Your task to perform on an android device: Search for flights from Tokyo to NYC Image 0: 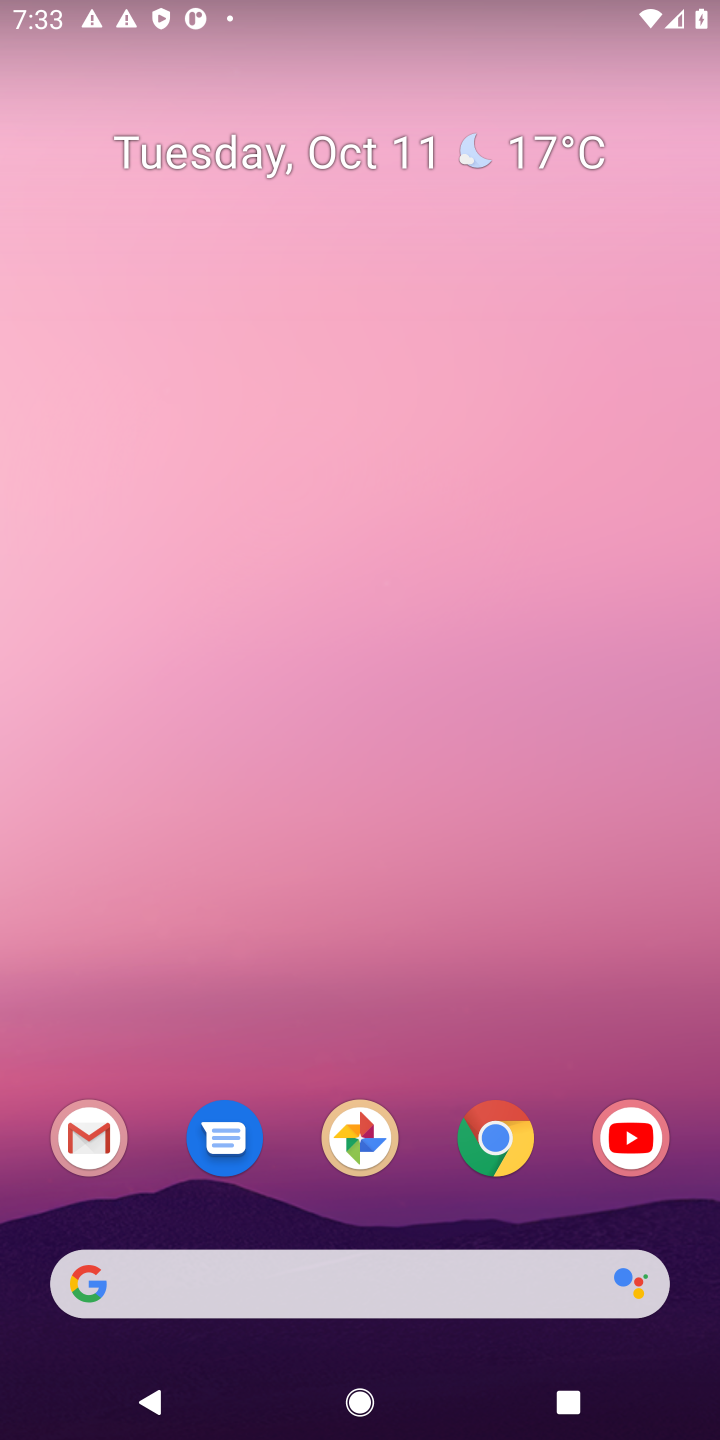
Step 0: click (268, 1274)
Your task to perform on an android device: Search for flights from Tokyo to NYC Image 1: 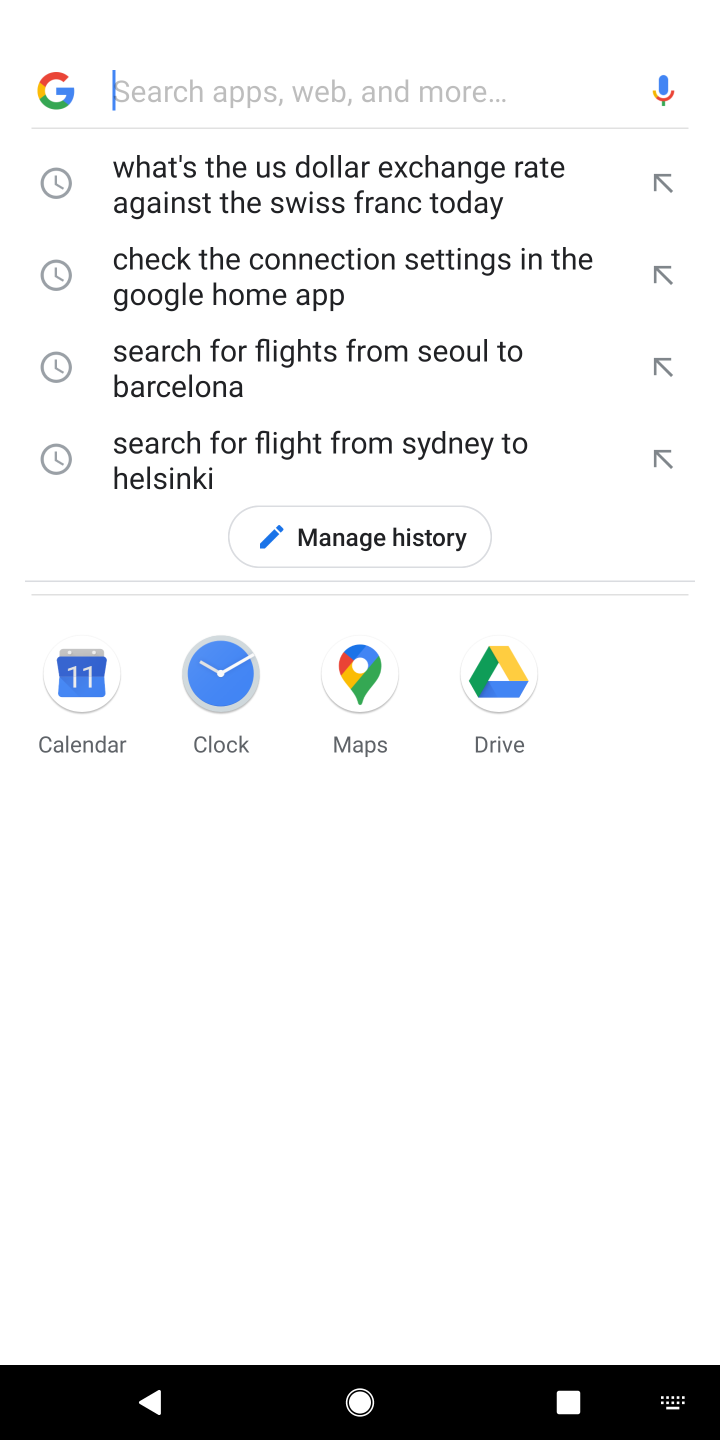
Step 1: type "search for flights from tokyo to NYC"
Your task to perform on an android device: Search for flights from Tokyo to NYC Image 2: 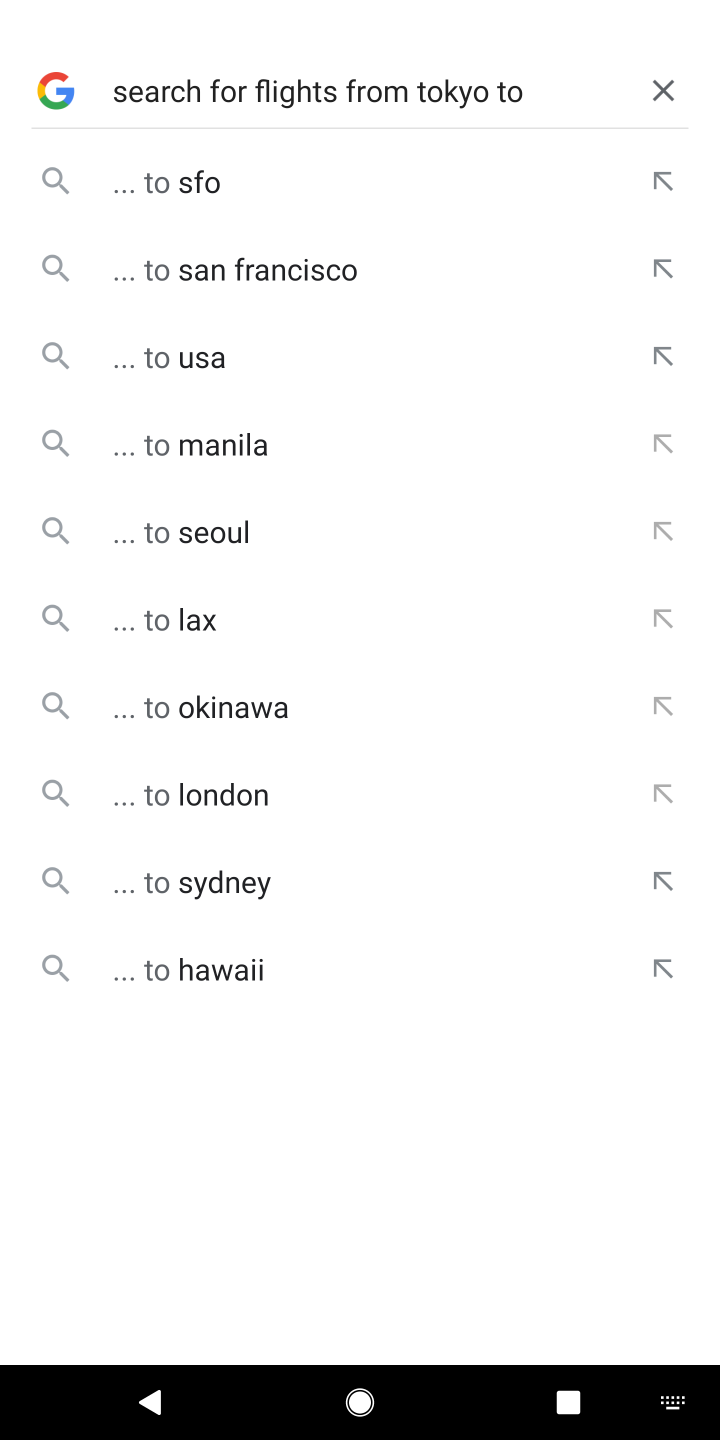
Step 2: type " NYC"
Your task to perform on an android device: Search for flights from Tokyo to NYC Image 3: 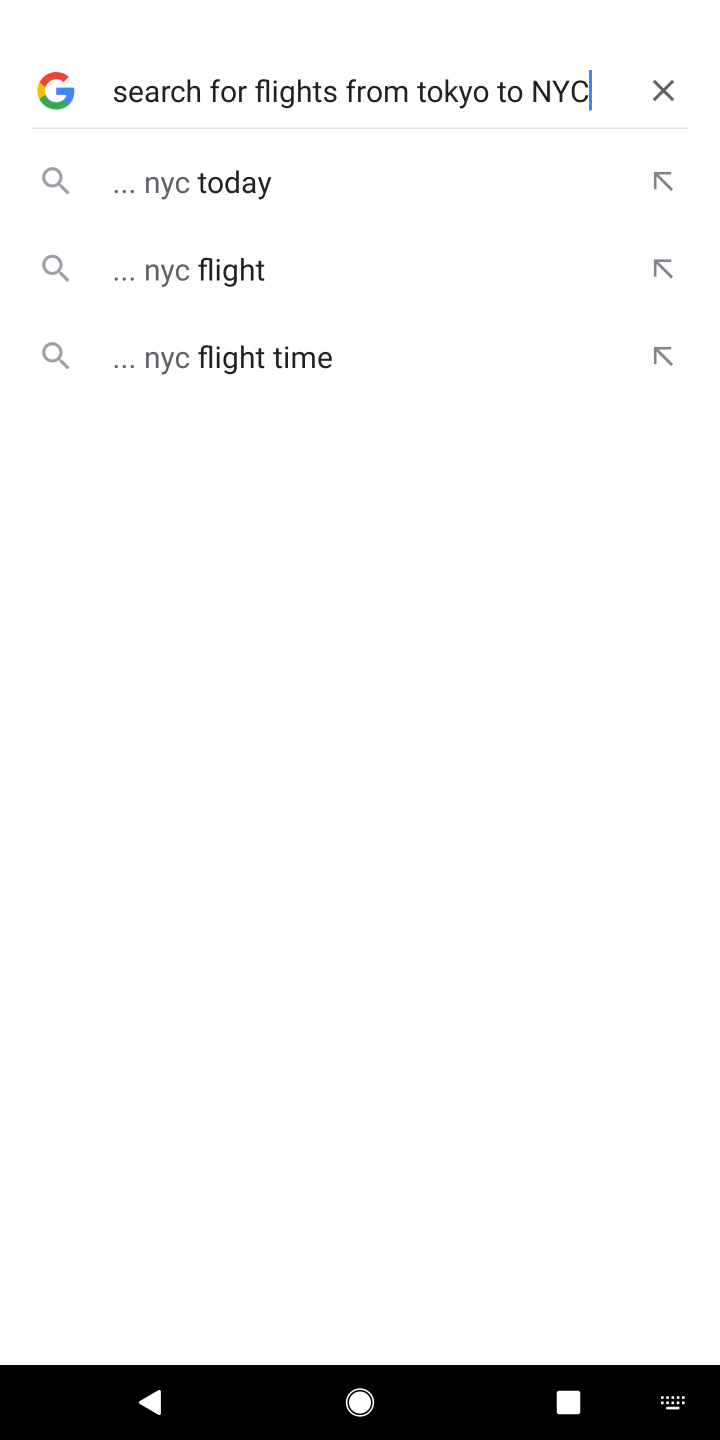
Step 3: click (224, 179)
Your task to perform on an android device: Search for flights from Tokyo to NYC Image 4: 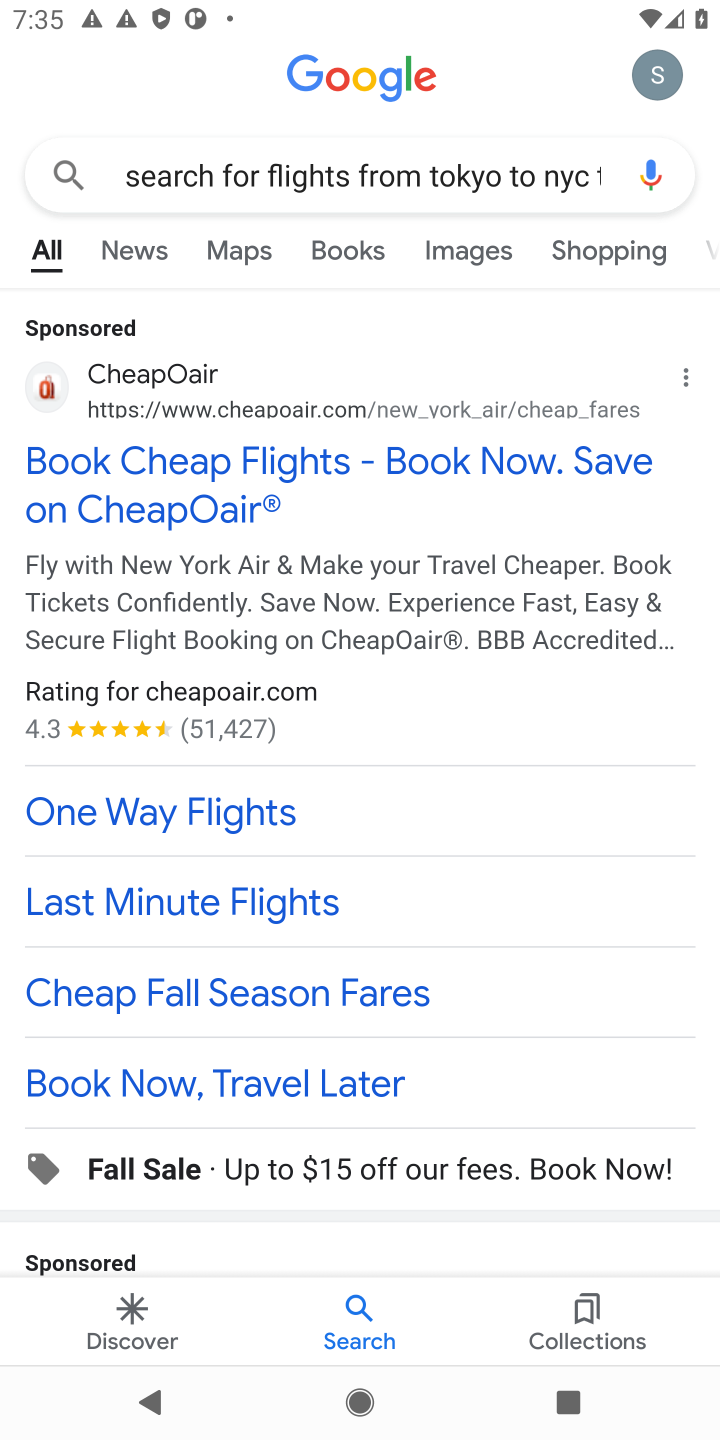
Step 4: click (183, 466)
Your task to perform on an android device: Search for flights from Tokyo to NYC Image 5: 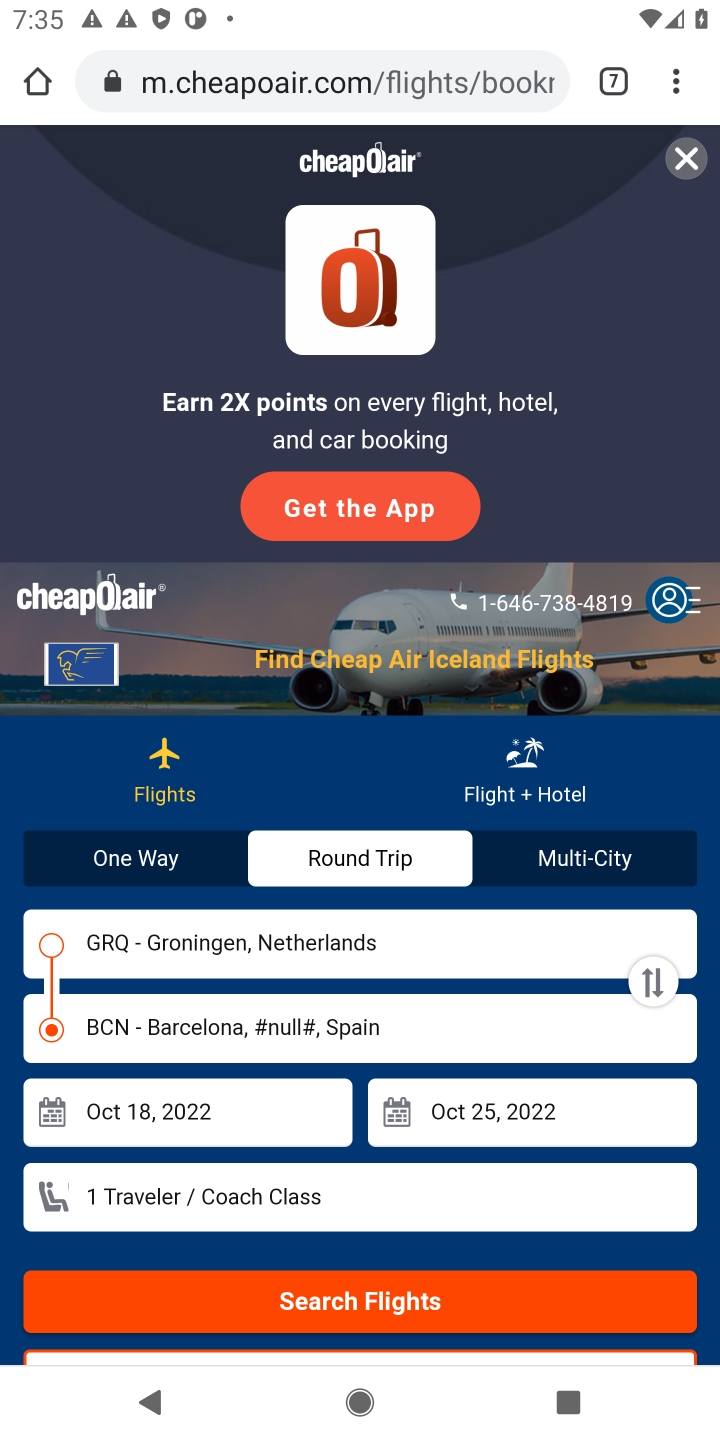
Step 5: click (117, 859)
Your task to perform on an android device: Search for flights from Tokyo to NYC Image 6: 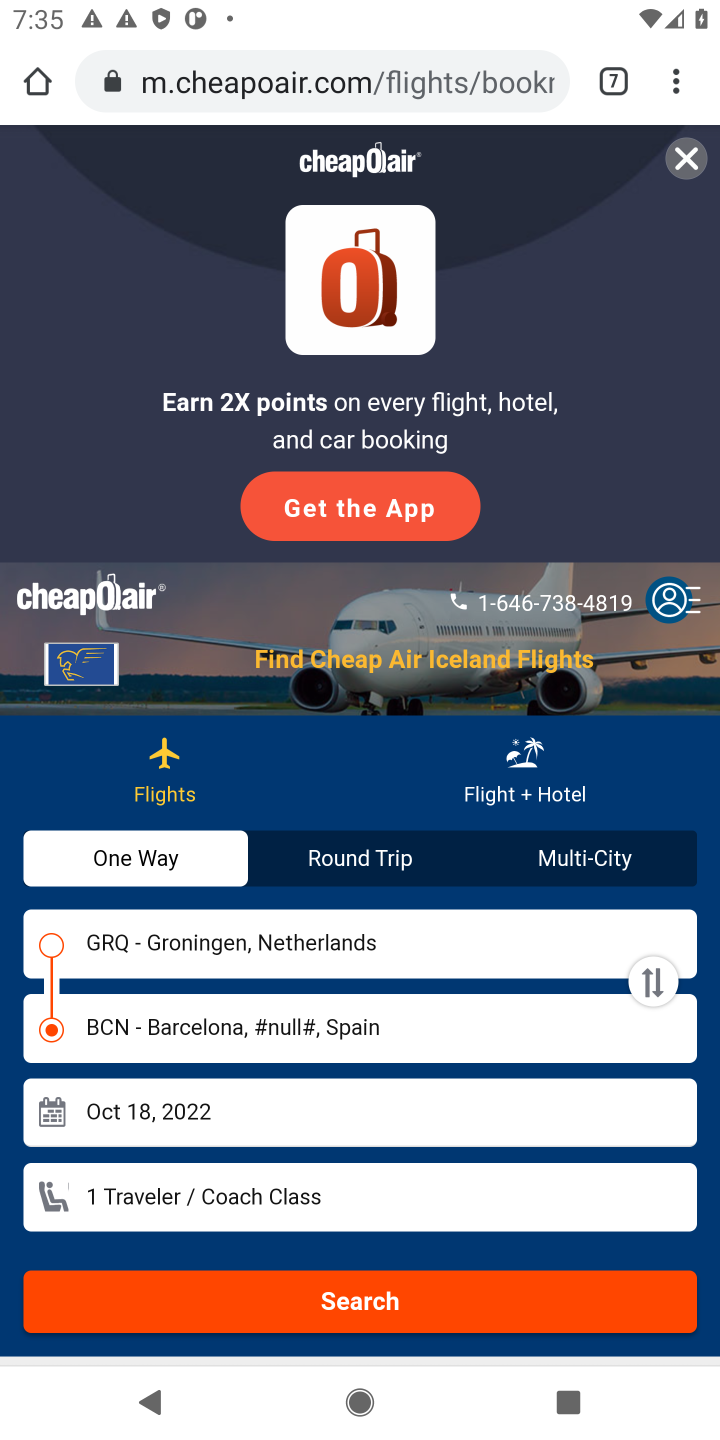
Step 6: click (337, 1300)
Your task to perform on an android device: Search for flights from Tokyo to NYC Image 7: 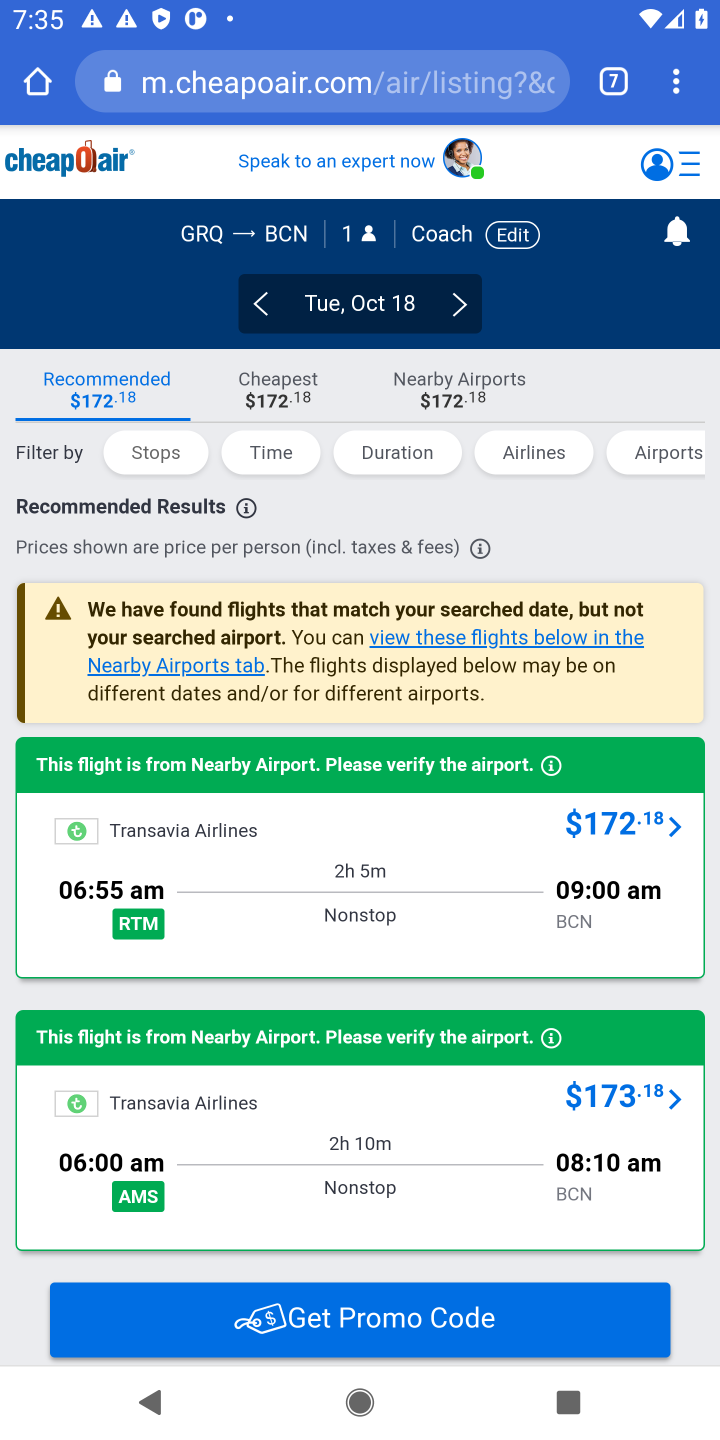
Step 7: task complete